Your task to perform on an android device: add a contact Image 0: 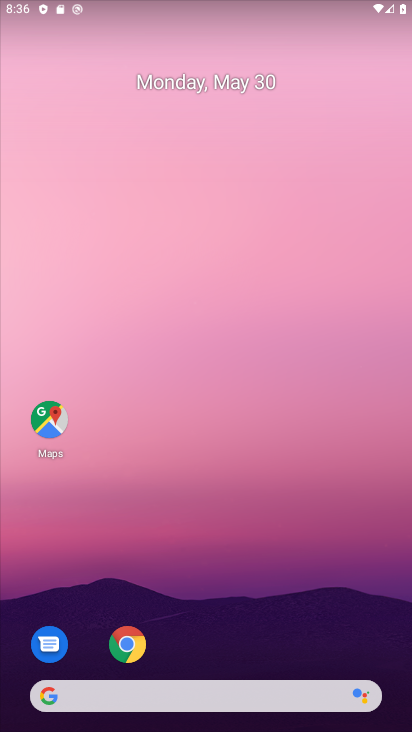
Step 0: drag from (234, 581) to (260, 114)
Your task to perform on an android device: add a contact Image 1: 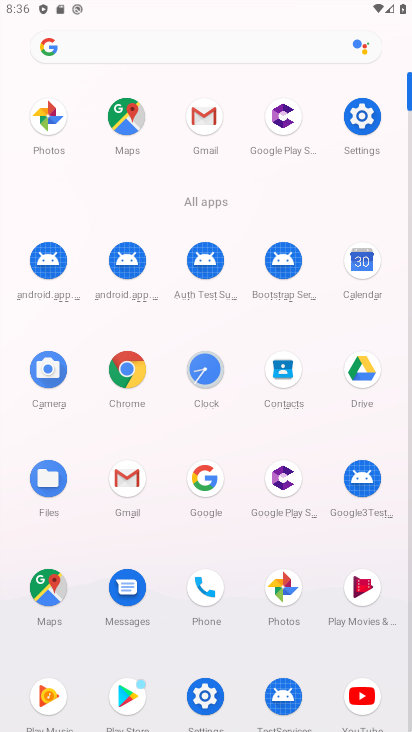
Step 1: click (294, 369)
Your task to perform on an android device: add a contact Image 2: 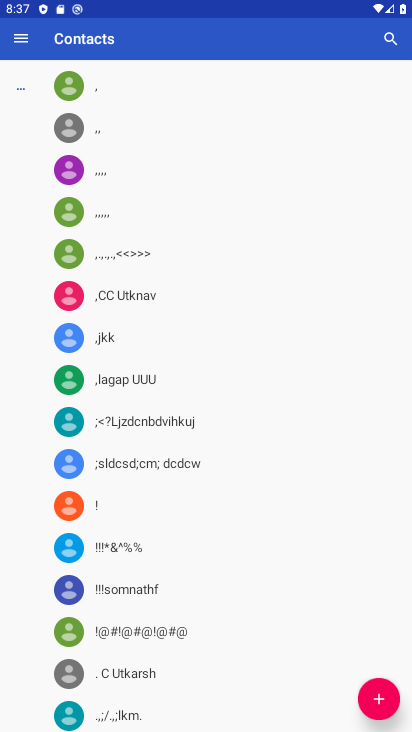
Step 2: click (382, 690)
Your task to perform on an android device: add a contact Image 3: 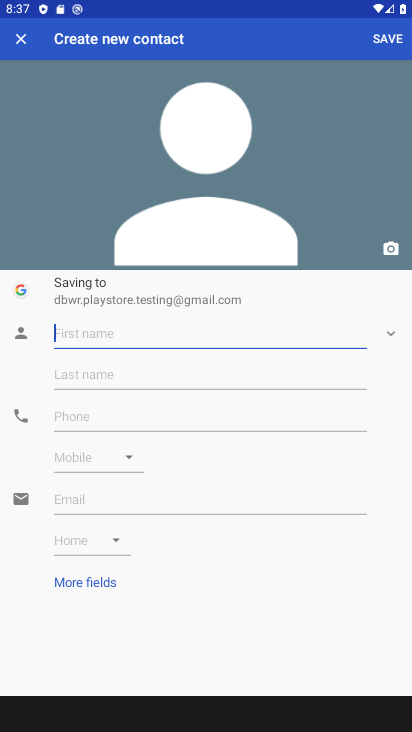
Step 3: click (81, 320)
Your task to perform on an android device: add a contact Image 4: 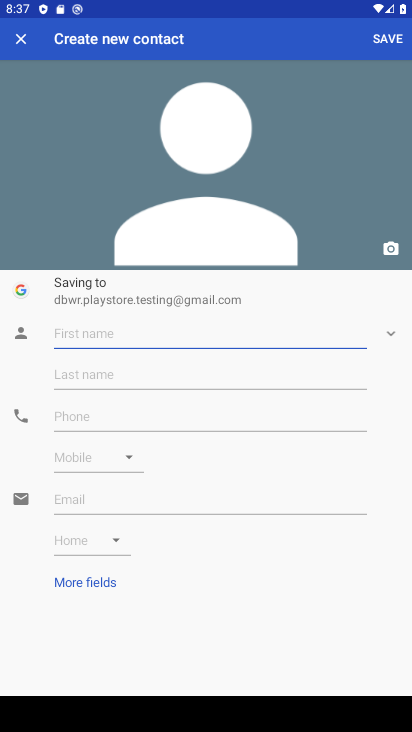
Step 4: type "hghh"
Your task to perform on an android device: add a contact Image 5: 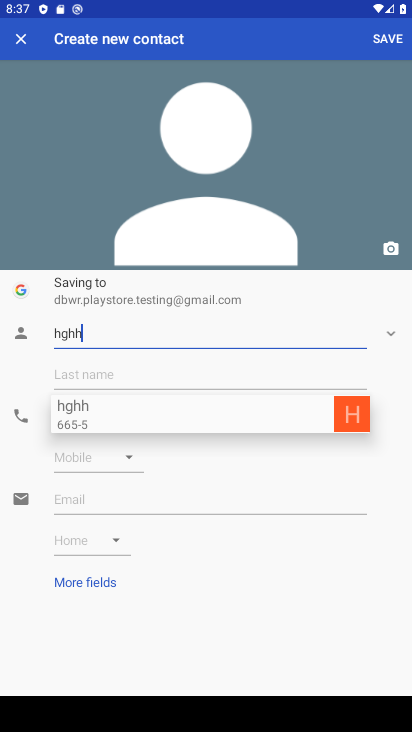
Step 5: click (86, 416)
Your task to perform on an android device: add a contact Image 6: 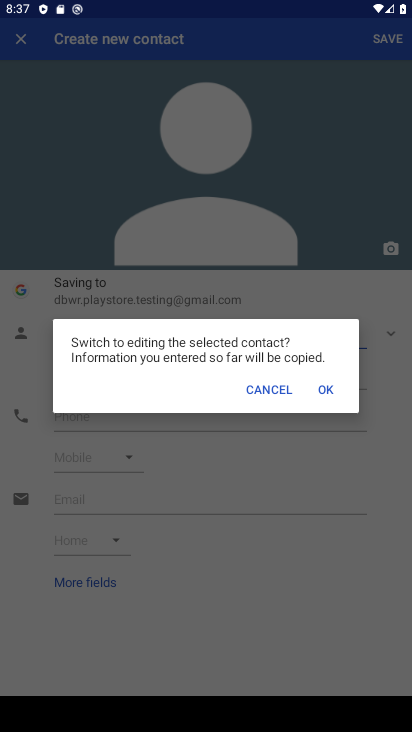
Step 6: click (314, 388)
Your task to perform on an android device: add a contact Image 7: 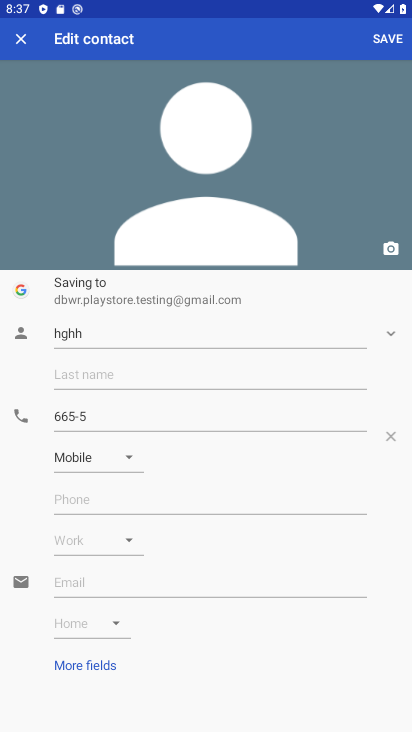
Step 7: click (396, 37)
Your task to perform on an android device: add a contact Image 8: 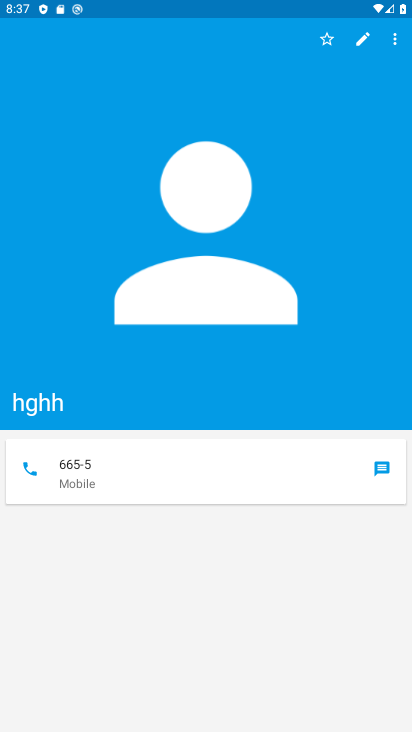
Step 8: task complete